Your task to perform on an android device: turn on improve location accuracy Image 0: 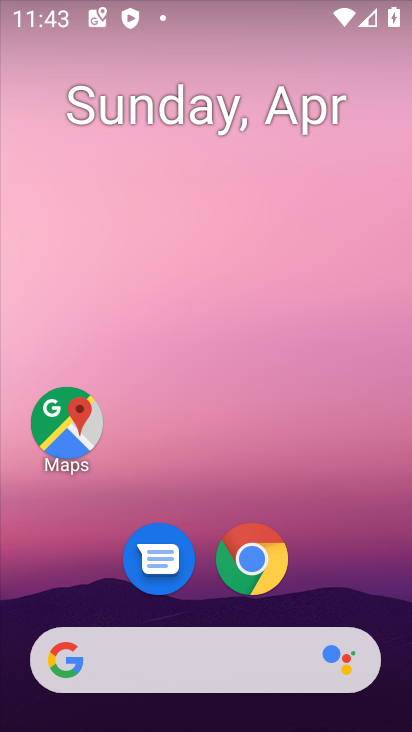
Step 0: drag from (382, 518) to (112, 88)
Your task to perform on an android device: turn on improve location accuracy Image 1: 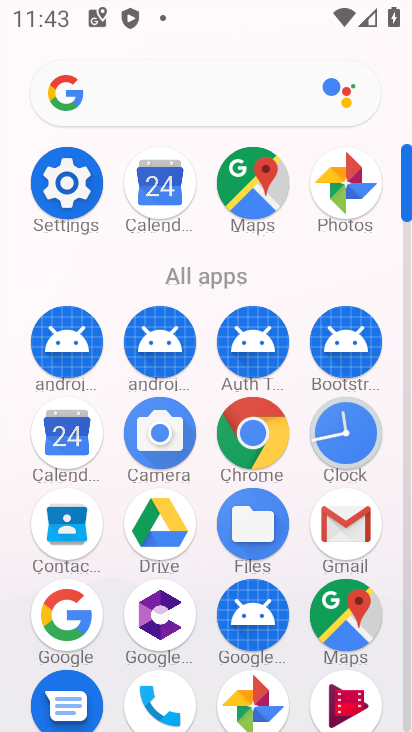
Step 1: click (79, 215)
Your task to perform on an android device: turn on improve location accuracy Image 2: 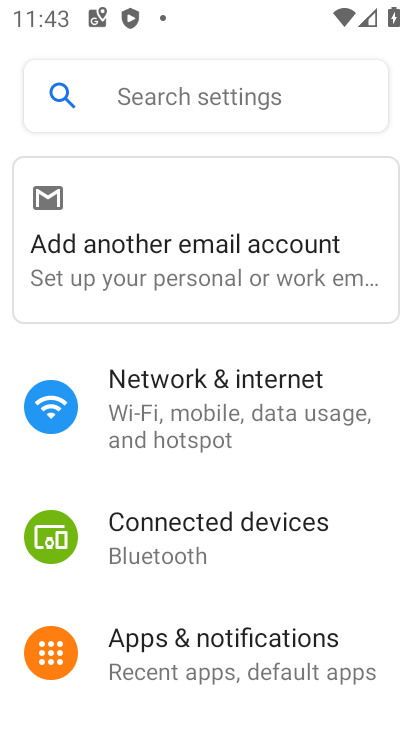
Step 2: drag from (210, 612) to (188, 339)
Your task to perform on an android device: turn on improve location accuracy Image 3: 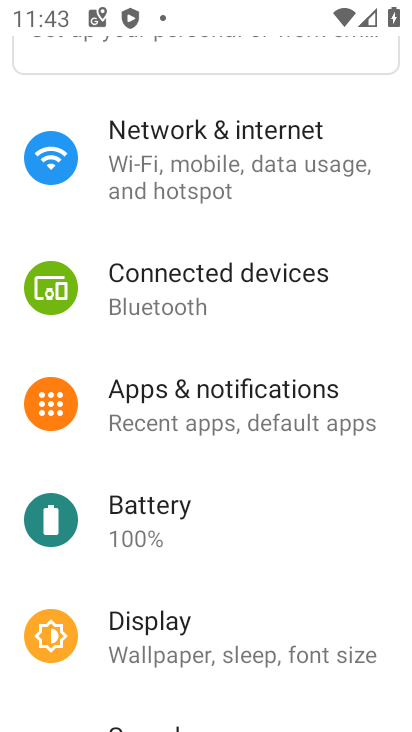
Step 3: drag from (203, 566) to (213, 282)
Your task to perform on an android device: turn on improve location accuracy Image 4: 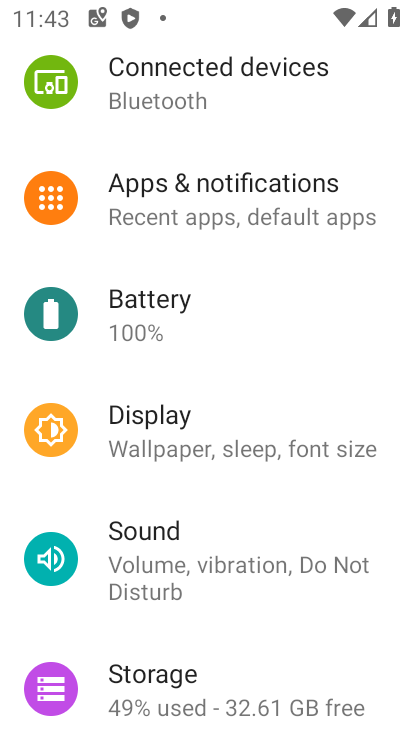
Step 4: drag from (240, 546) to (179, 357)
Your task to perform on an android device: turn on improve location accuracy Image 5: 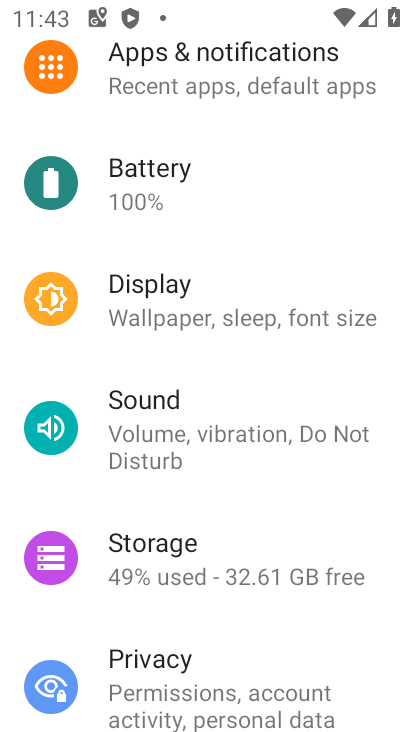
Step 5: drag from (256, 601) to (204, 344)
Your task to perform on an android device: turn on improve location accuracy Image 6: 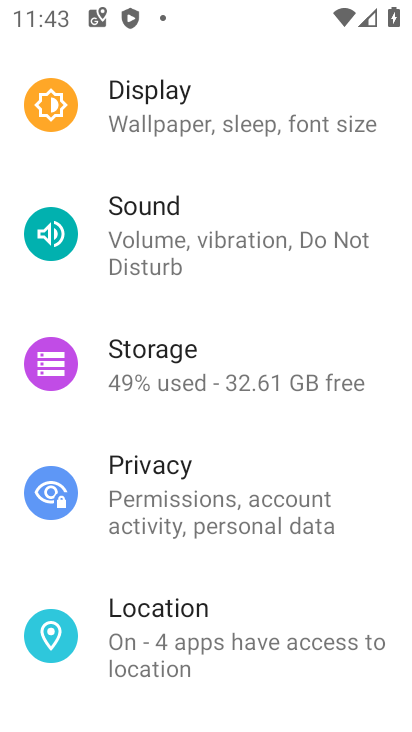
Step 6: click (279, 612)
Your task to perform on an android device: turn on improve location accuracy Image 7: 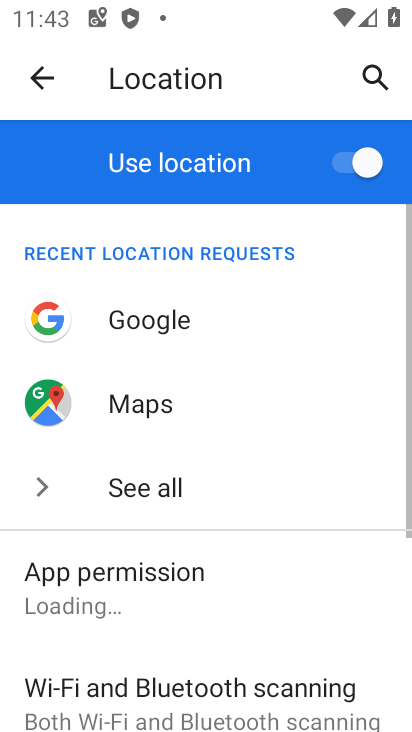
Step 7: drag from (279, 612) to (277, 408)
Your task to perform on an android device: turn on improve location accuracy Image 8: 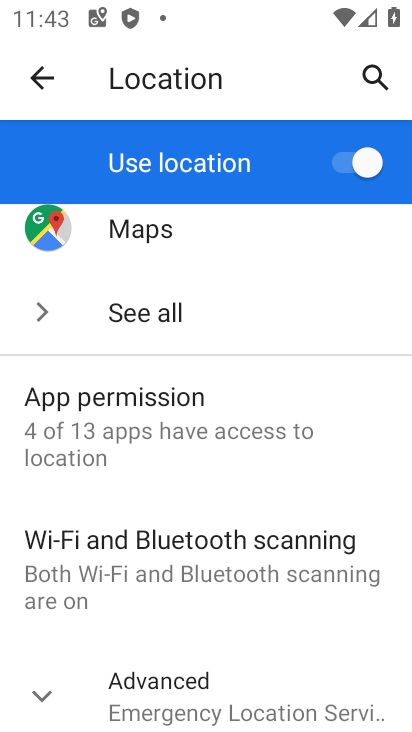
Step 8: drag from (242, 591) to (245, 418)
Your task to perform on an android device: turn on improve location accuracy Image 9: 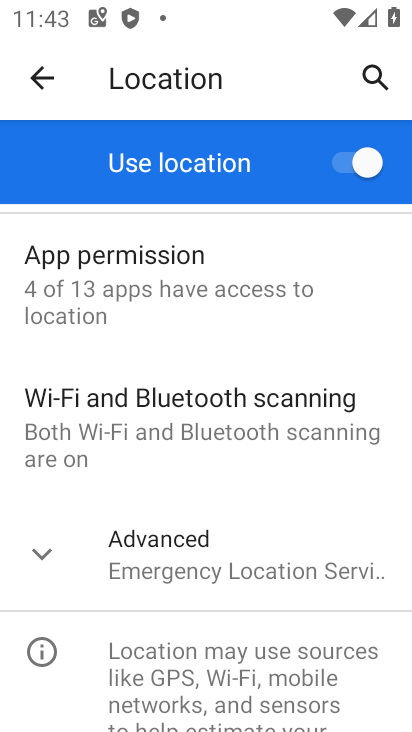
Step 9: click (254, 543)
Your task to perform on an android device: turn on improve location accuracy Image 10: 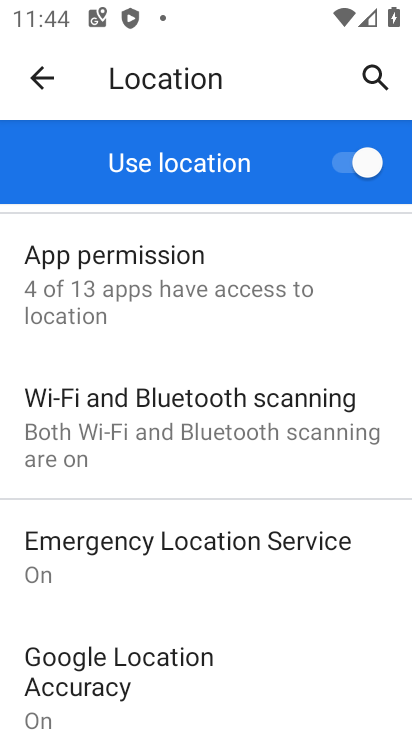
Step 10: drag from (212, 633) to (213, 585)
Your task to perform on an android device: turn on improve location accuracy Image 11: 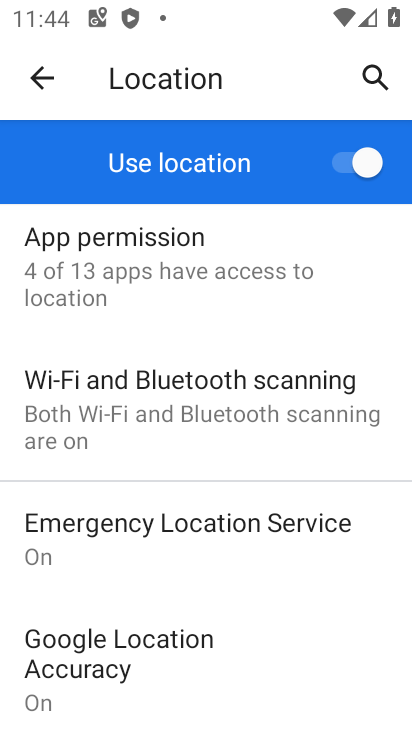
Step 11: drag from (211, 645) to (240, 512)
Your task to perform on an android device: turn on improve location accuracy Image 12: 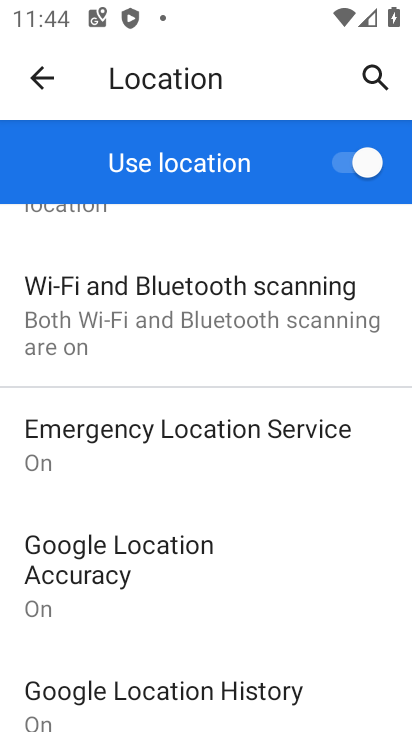
Step 12: click (247, 542)
Your task to perform on an android device: turn on improve location accuracy Image 13: 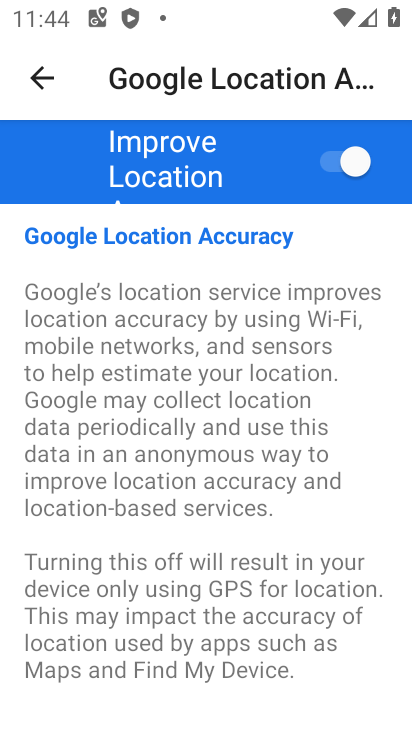
Step 13: task complete